Your task to perform on an android device: Go to Wikipedia Image 0: 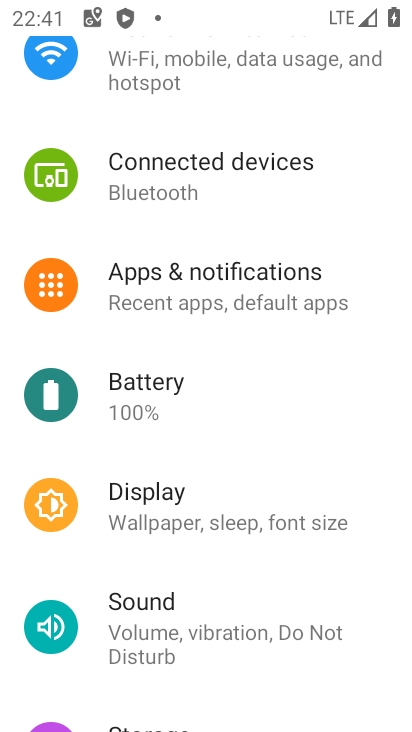
Step 0: press home button
Your task to perform on an android device: Go to Wikipedia Image 1: 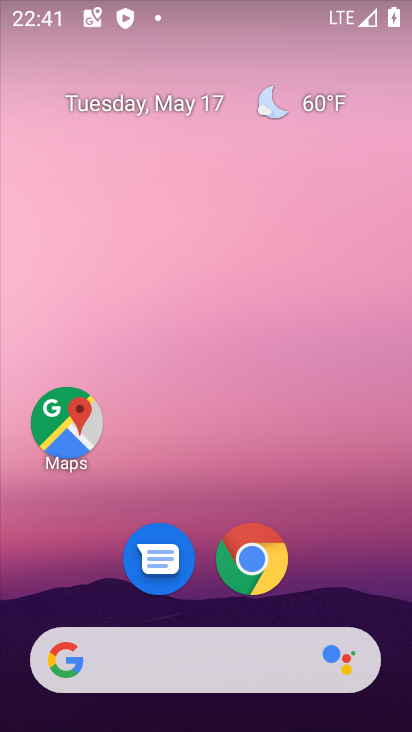
Step 1: click (258, 558)
Your task to perform on an android device: Go to Wikipedia Image 2: 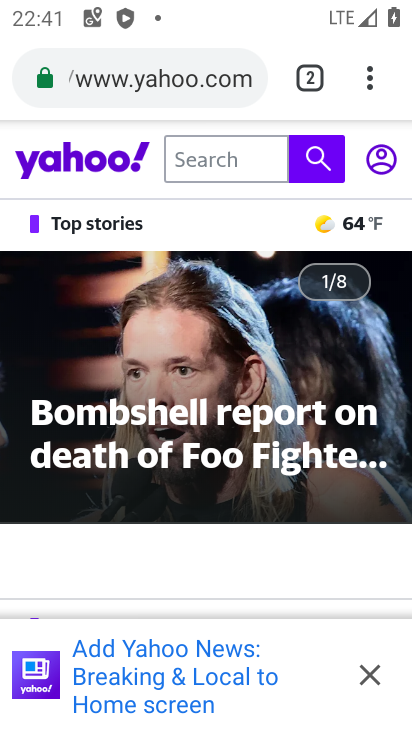
Step 2: click (196, 71)
Your task to perform on an android device: Go to Wikipedia Image 3: 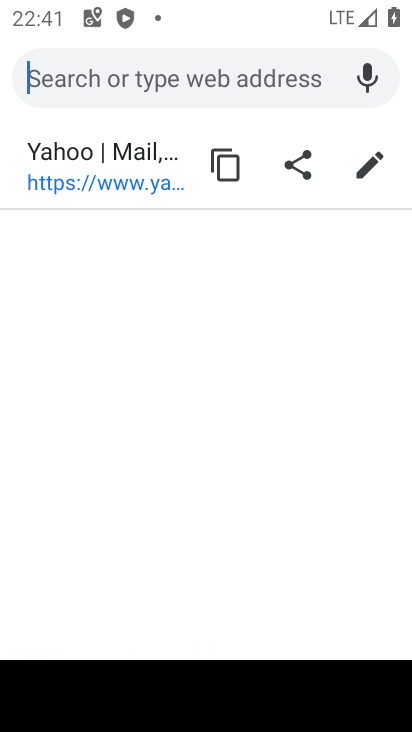
Step 3: type "wikipedia"
Your task to perform on an android device: Go to Wikipedia Image 4: 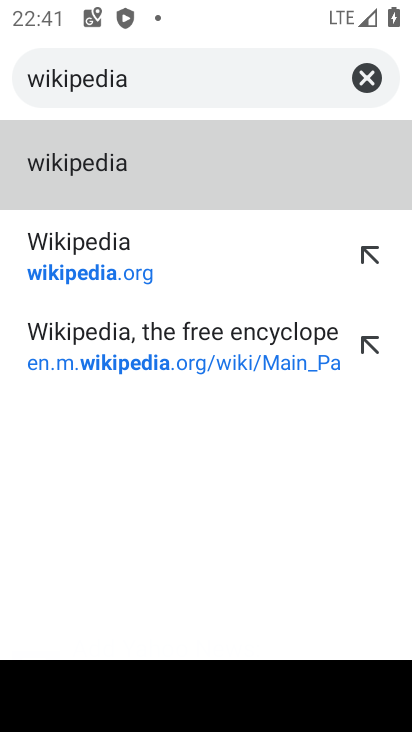
Step 4: click (98, 279)
Your task to perform on an android device: Go to Wikipedia Image 5: 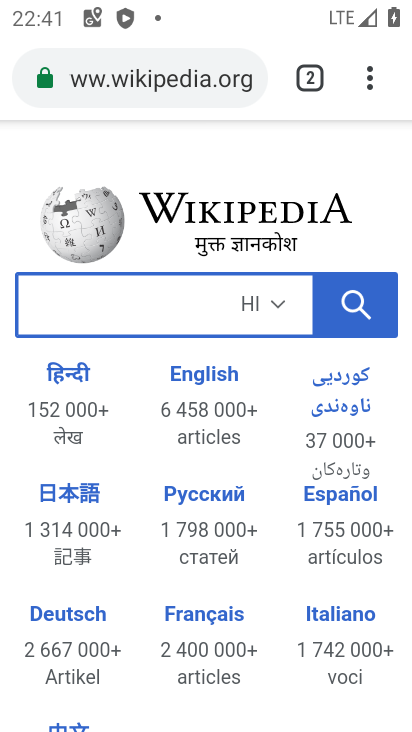
Step 5: task complete